Your task to perform on an android device: turn notification dots off Image 0: 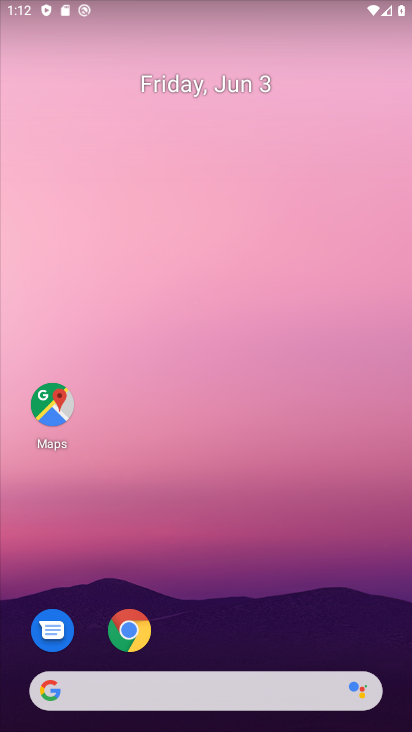
Step 0: drag from (194, 723) to (188, 116)
Your task to perform on an android device: turn notification dots off Image 1: 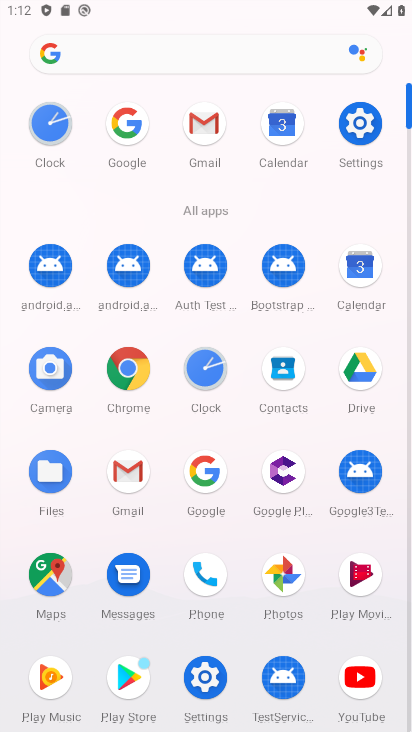
Step 1: click (355, 118)
Your task to perform on an android device: turn notification dots off Image 2: 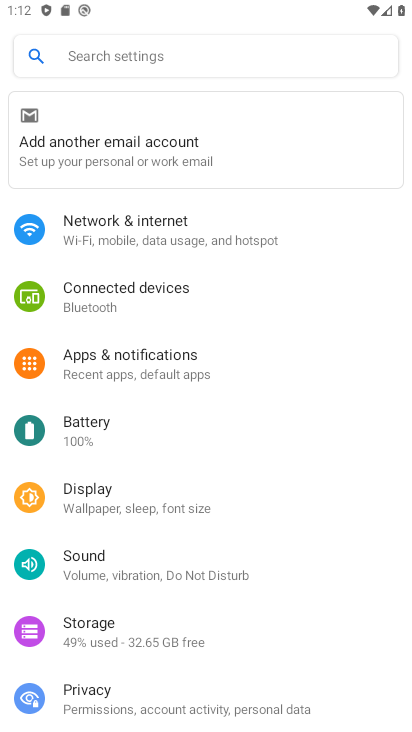
Step 2: click (82, 367)
Your task to perform on an android device: turn notification dots off Image 3: 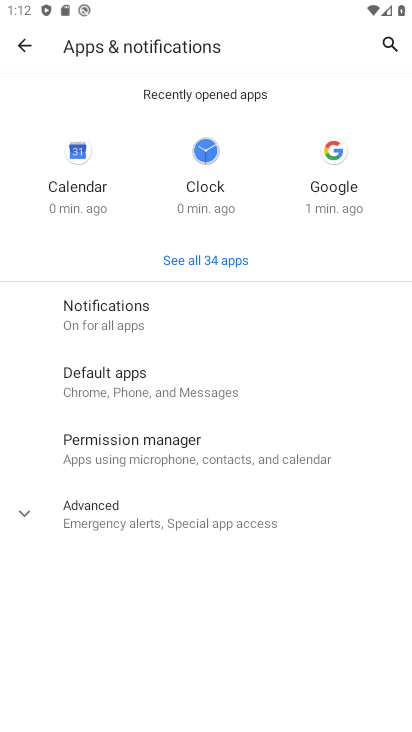
Step 3: click (76, 310)
Your task to perform on an android device: turn notification dots off Image 4: 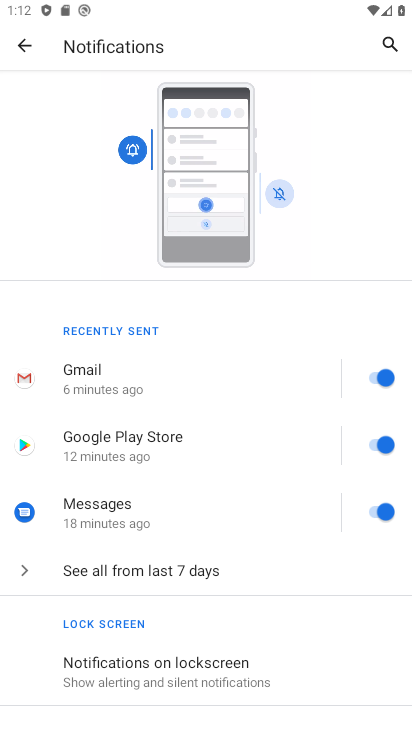
Step 4: drag from (288, 669) to (255, 335)
Your task to perform on an android device: turn notification dots off Image 5: 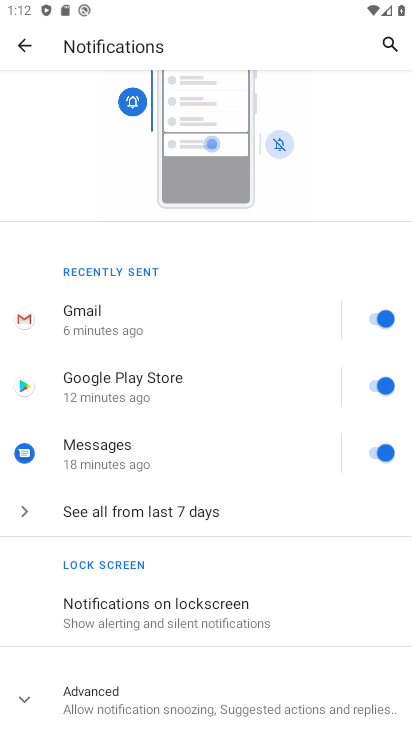
Step 5: click (140, 698)
Your task to perform on an android device: turn notification dots off Image 6: 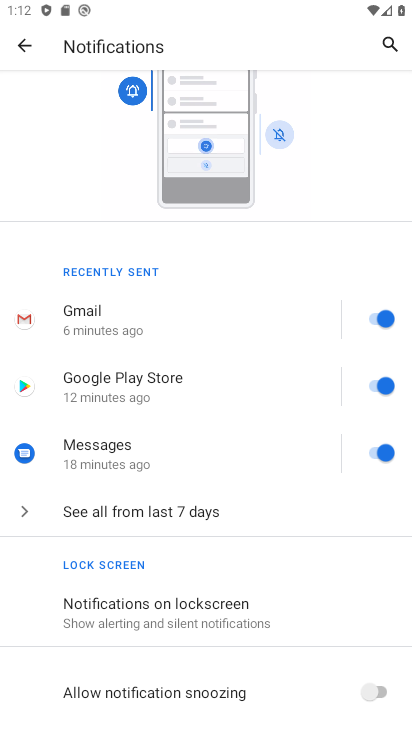
Step 6: drag from (251, 714) to (254, 335)
Your task to perform on an android device: turn notification dots off Image 7: 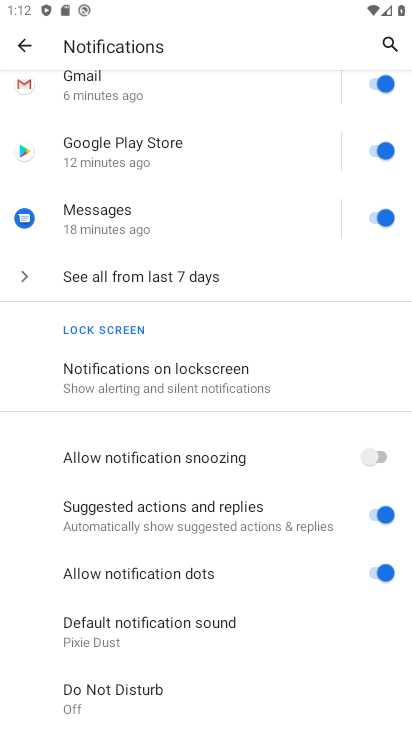
Step 7: click (373, 573)
Your task to perform on an android device: turn notification dots off Image 8: 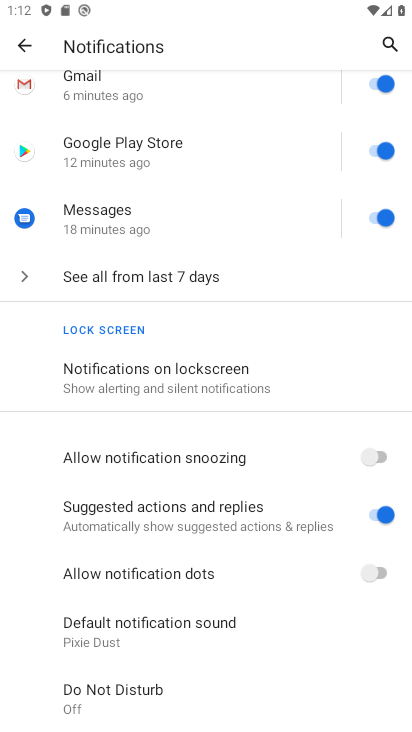
Step 8: task complete